Your task to perform on an android device: move a message to another label in the gmail app Image 0: 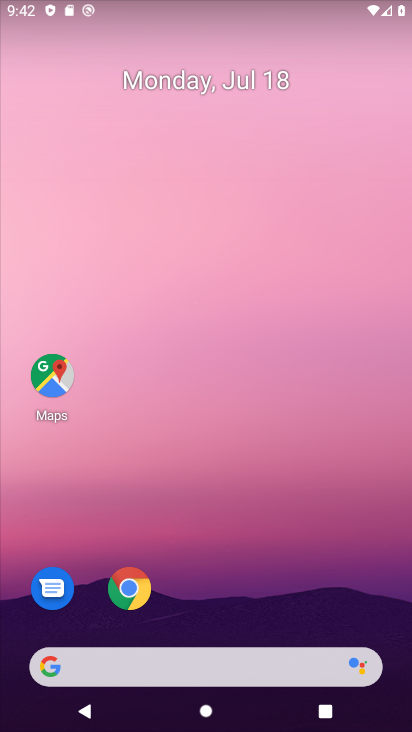
Step 0: drag from (240, 723) to (224, 255)
Your task to perform on an android device: move a message to another label in the gmail app Image 1: 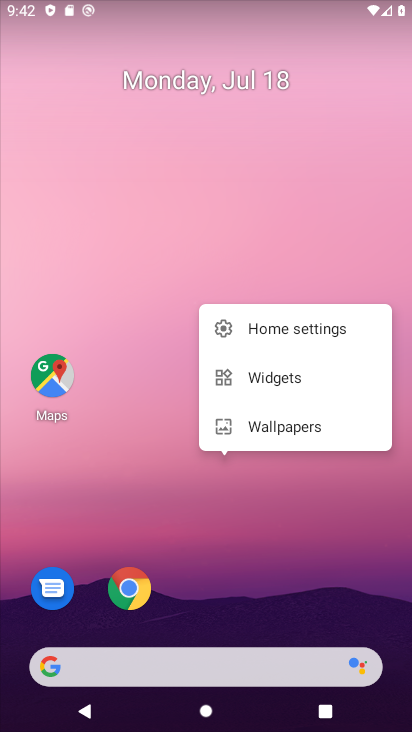
Step 1: click (283, 525)
Your task to perform on an android device: move a message to another label in the gmail app Image 2: 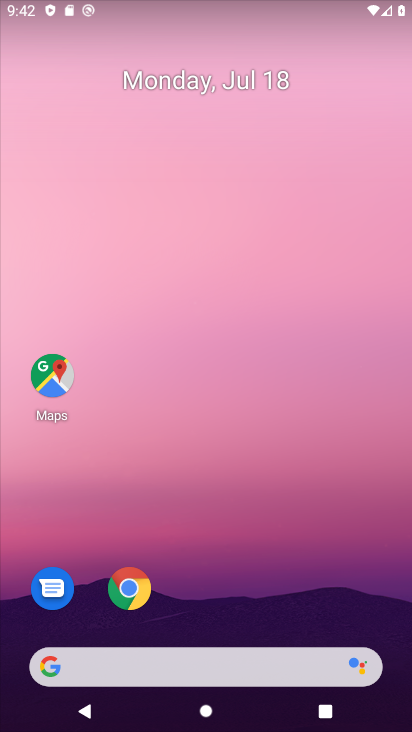
Step 2: drag from (244, 711) to (233, 261)
Your task to perform on an android device: move a message to another label in the gmail app Image 3: 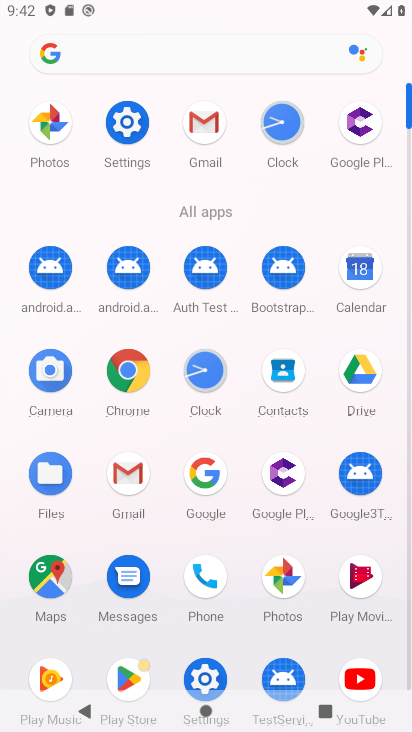
Step 3: click (132, 472)
Your task to perform on an android device: move a message to another label in the gmail app Image 4: 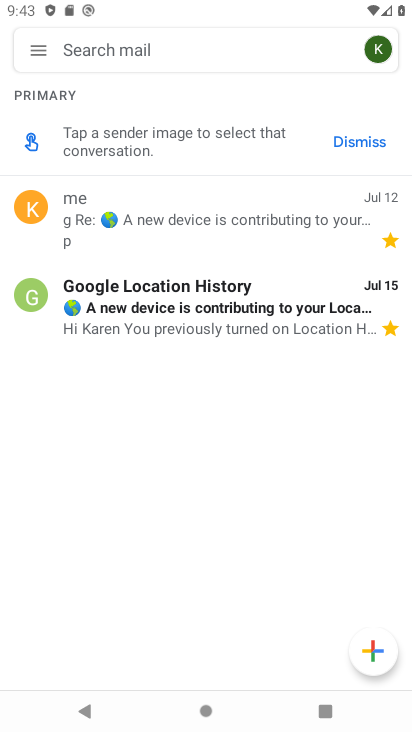
Step 4: click (148, 292)
Your task to perform on an android device: move a message to another label in the gmail app Image 5: 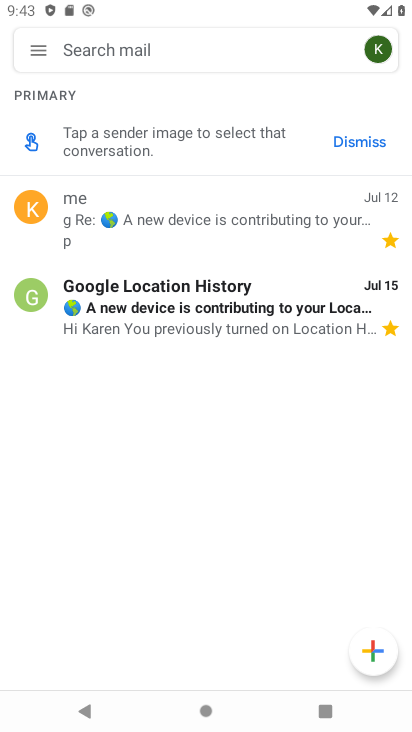
Step 5: click (148, 292)
Your task to perform on an android device: move a message to another label in the gmail app Image 6: 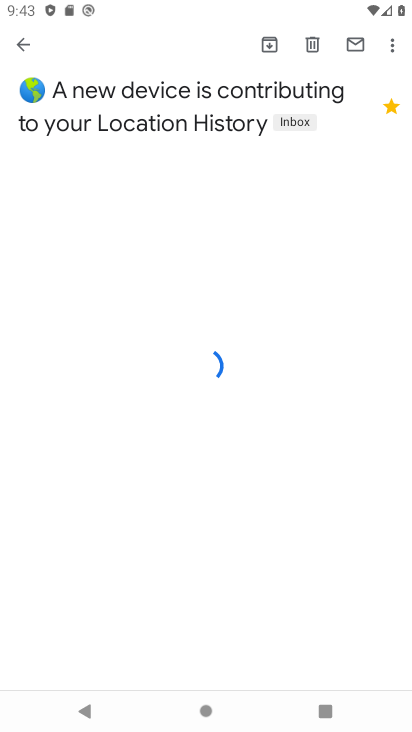
Step 6: click (392, 48)
Your task to perform on an android device: move a message to another label in the gmail app Image 7: 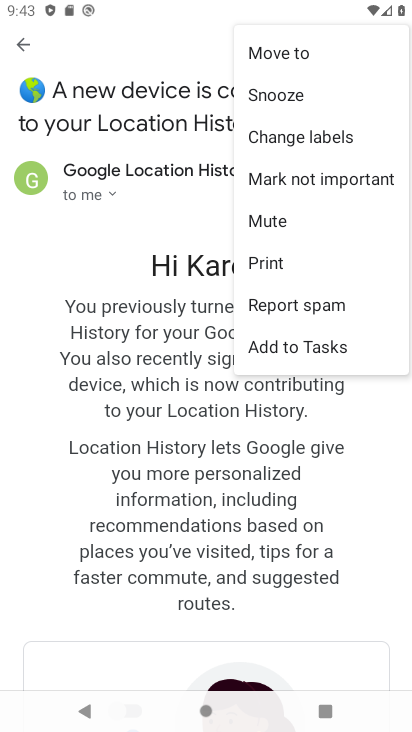
Step 7: click (285, 52)
Your task to perform on an android device: move a message to another label in the gmail app Image 8: 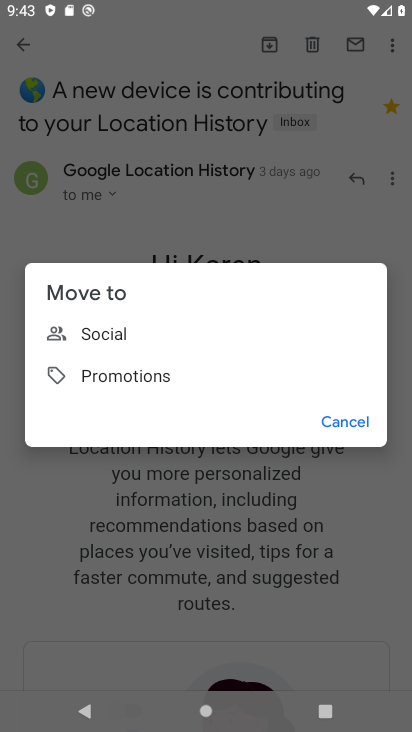
Step 8: click (96, 330)
Your task to perform on an android device: move a message to another label in the gmail app Image 9: 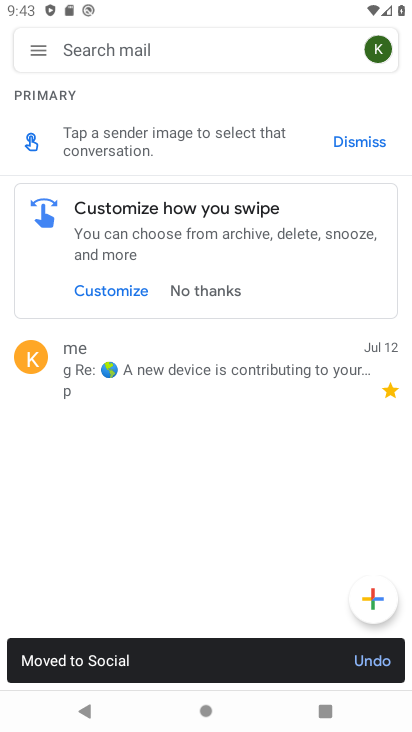
Step 9: task complete